Your task to perform on an android device: Open network settings Image 0: 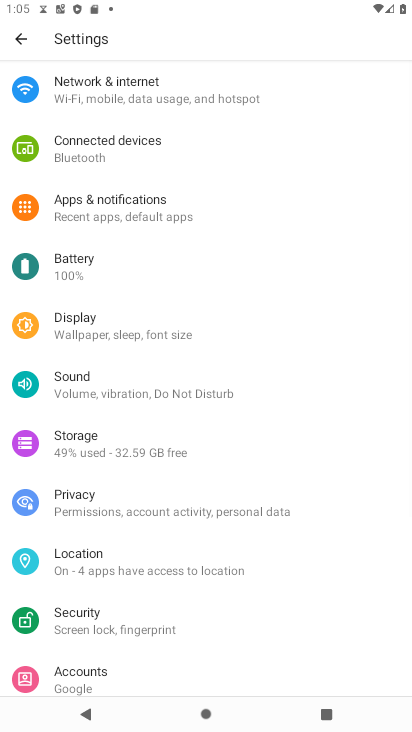
Step 0: click (89, 79)
Your task to perform on an android device: Open network settings Image 1: 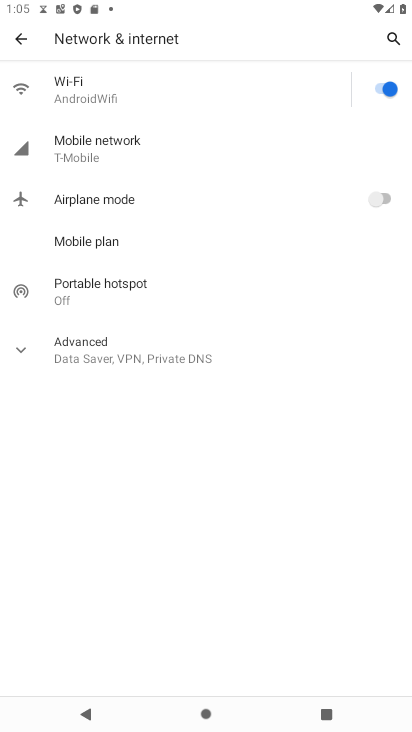
Step 1: task complete